Your task to perform on an android device: Show me popular videos on Youtube Image 0: 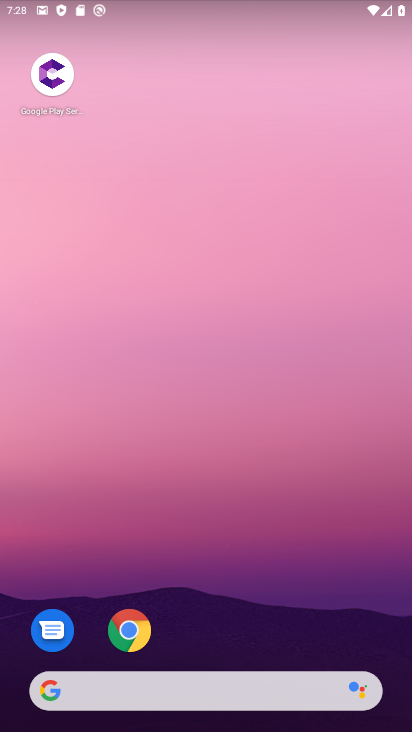
Step 0: drag from (237, 624) to (248, 191)
Your task to perform on an android device: Show me popular videos on Youtube Image 1: 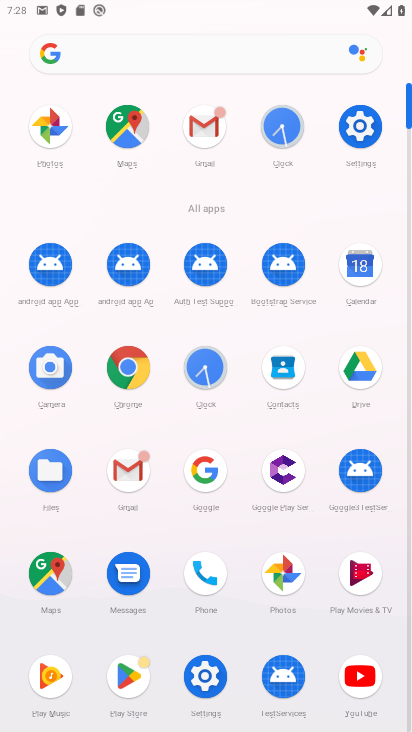
Step 1: click (350, 674)
Your task to perform on an android device: Show me popular videos on Youtube Image 2: 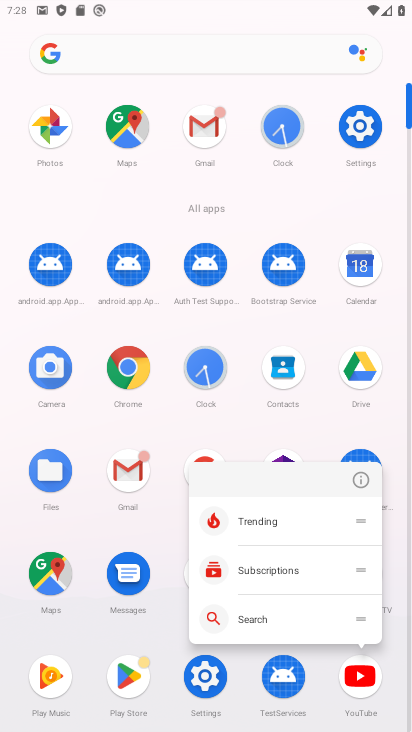
Step 2: click (366, 673)
Your task to perform on an android device: Show me popular videos on Youtube Image 3: 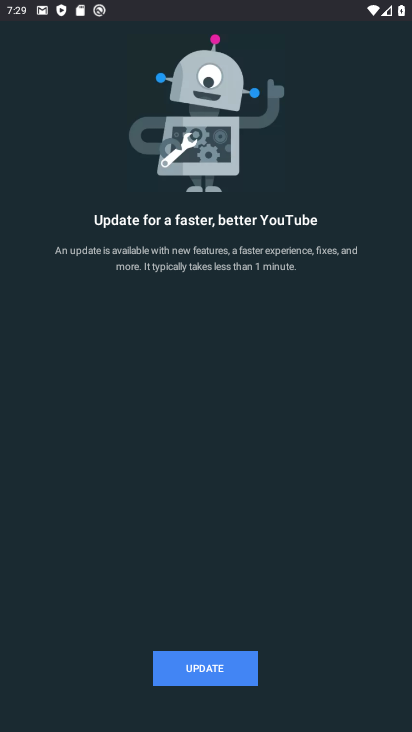
Step 3: task complete